Your task to perform on an android device: open device folders in google photos Image 0: 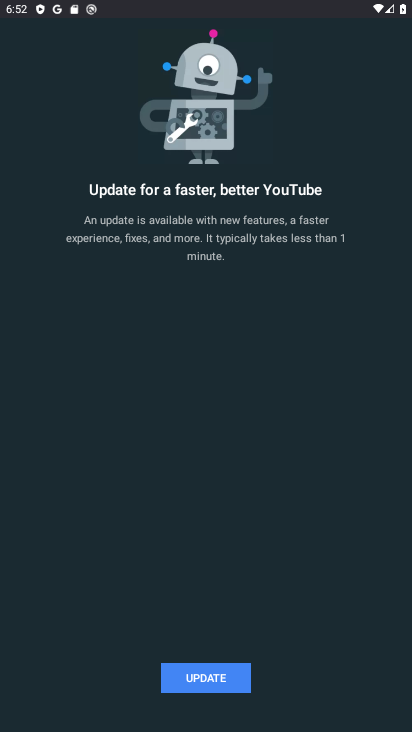
Step 0: press home button
Your task to perform on an android device: open device folders in google photos Image 1: 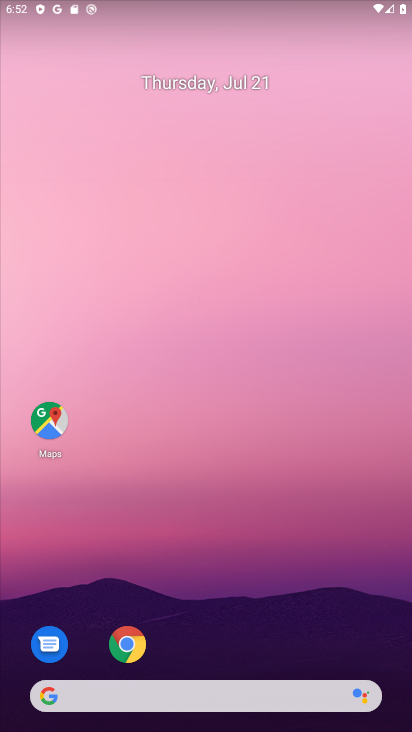
Step 1: drag from (227, 471) to (230, 299)
Your task to perform on an android device: open device folders in google photos Image 2: 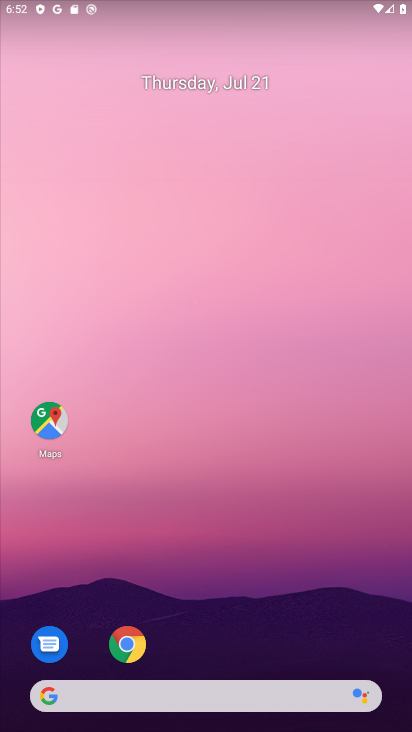
Step 2: drag from (244, 614) to (237, 302)
Your task to perform on an android device: open device folders in google photos Image 3: 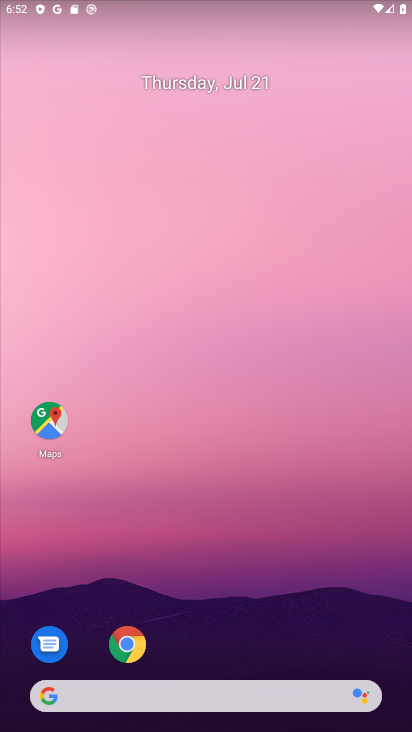
Step 3: drag from (268, 622) to (233, 192)
Your task to perform on an android device: open device folders in google photos Image 4: 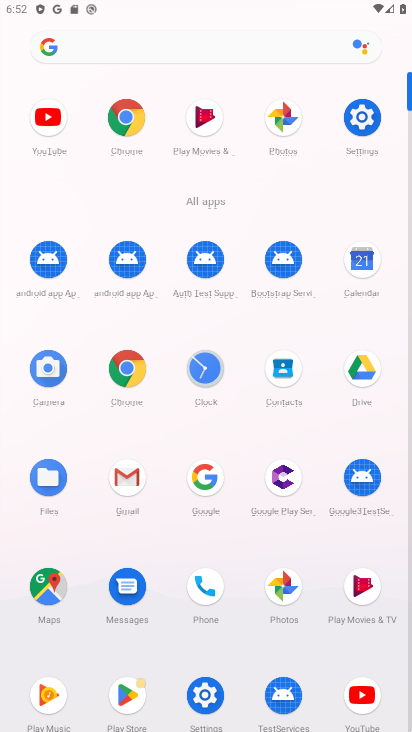
Step 4: click (276, 124)
Your task to perform on an android device: open device folders in google photos Image 5: 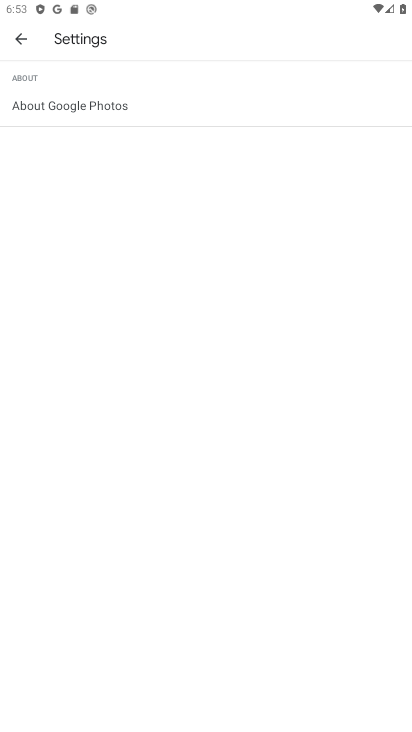
Step 5: click (15, 37)
Your task to perform on an android device: open device folders in google photos Image 6: 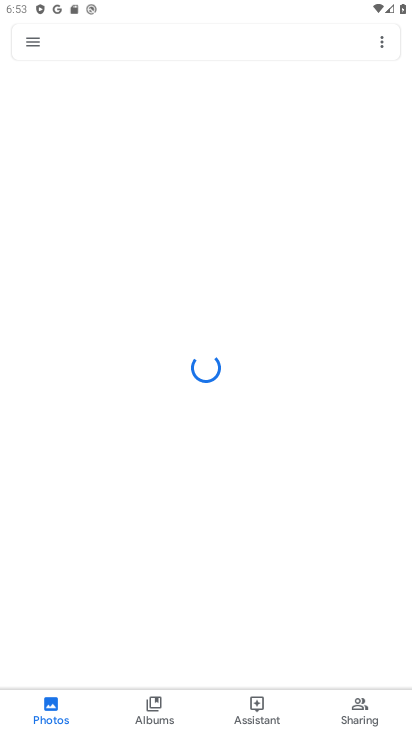
Step 6: task complete